Your task to perform on an android device: all mails in gmail Image 0: 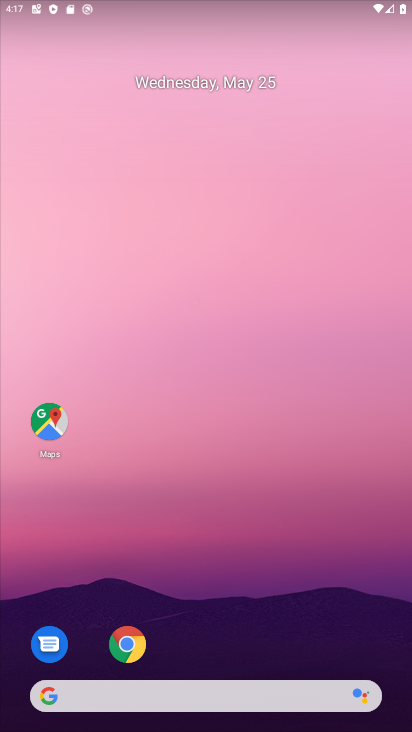
Step 0: drag from (257, 641) to (265, 10)
Your task to perform on an android device: all mails in gmail Image 1: 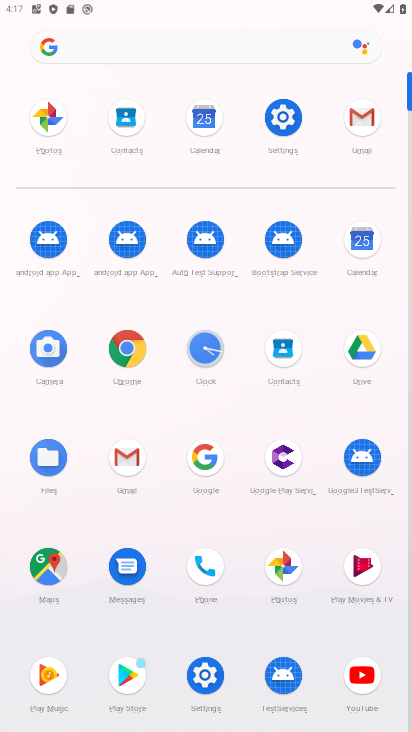
Step 1: click (358, 136)
Your task to perform on an android device: all mails in gmail Image 2: 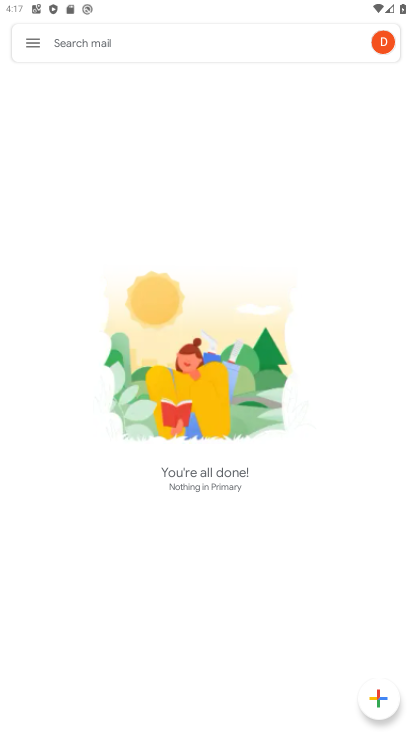
Step 2: click (18, 41)
Your task to perform on an android device: all mails in gmail Image 3: 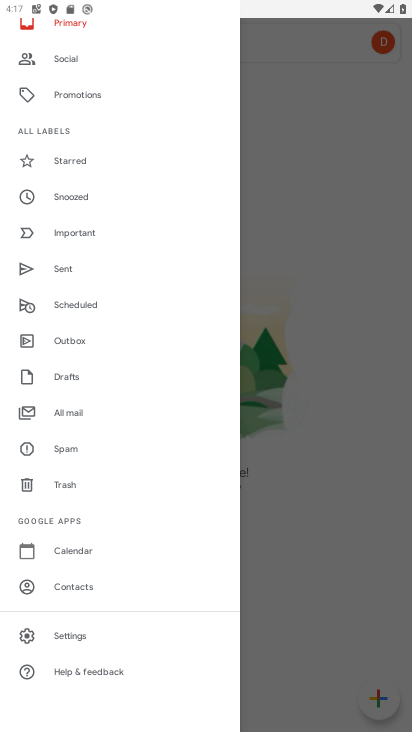
Step 3: click (58, 415)
Your task to perform on an android device: all mails in gmail Image 4: 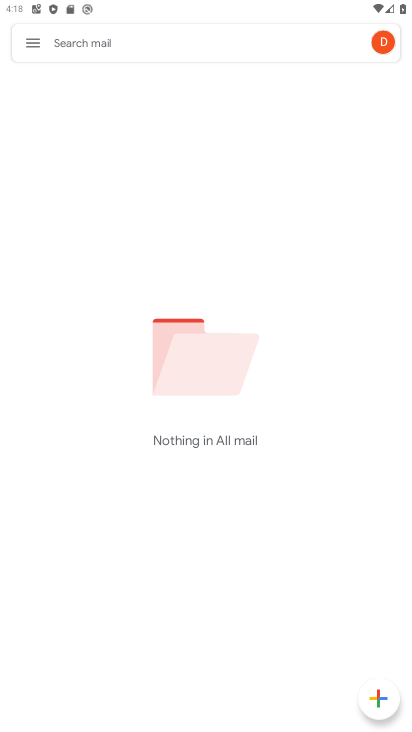
Step 4: task complete